Your task to perform on an android device: turn smart compose on in the gmail app Image 0: 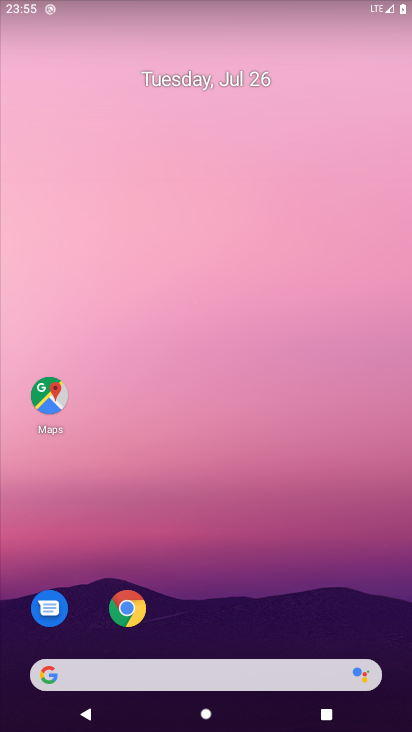
Step 0: press home button
Your task to perform on an android device: turn smart compose on in the gmail app Image 1: 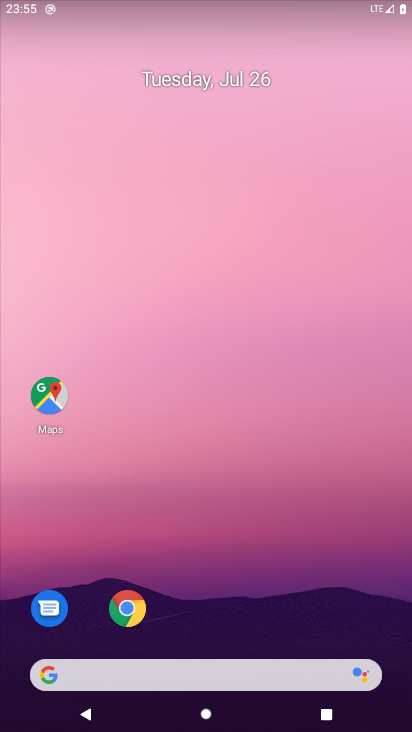
Step 1: drag from (271, 586) to (250, 92)
Your task to perform on an android device: turn smart compose on in the gmail app Image 2: 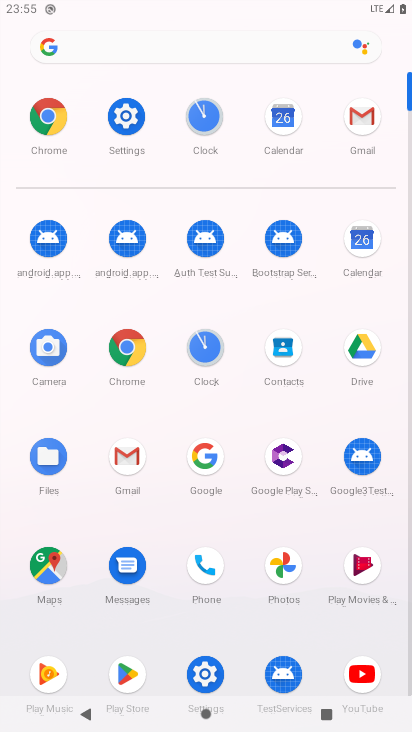
Step 2: click (368, 120)
Your task to perform on an android device: turn smart compose on in the gmail app Image 3: 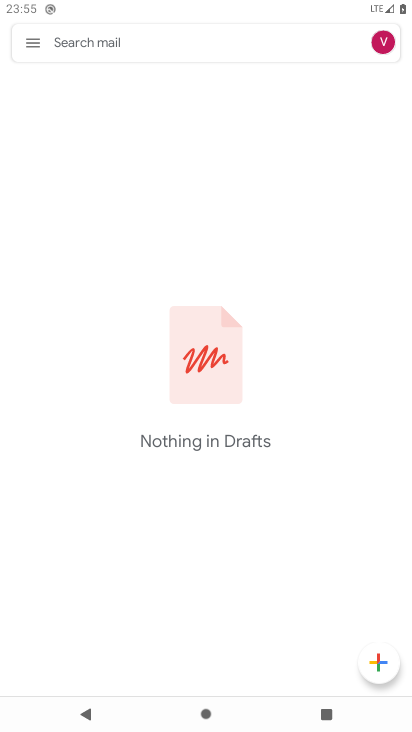
Step 3: click (31, 45)
Your task to perform on an android device: turn smart compose on in the gmail app Image 4: 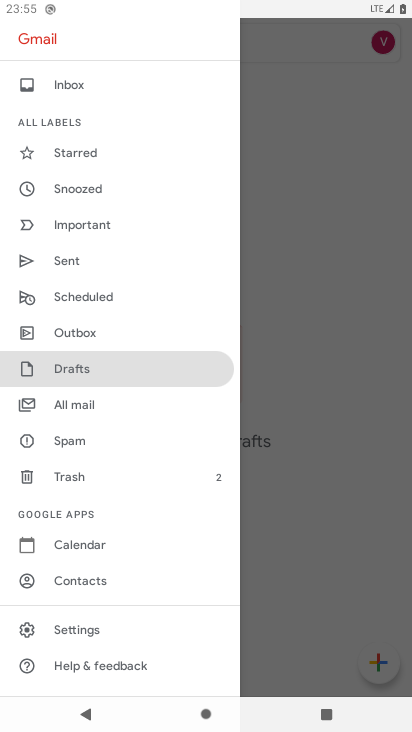
Step 4: click (84, 623)
Your task to perform on an android device: turn smart compose on in the gmail app Image 5: 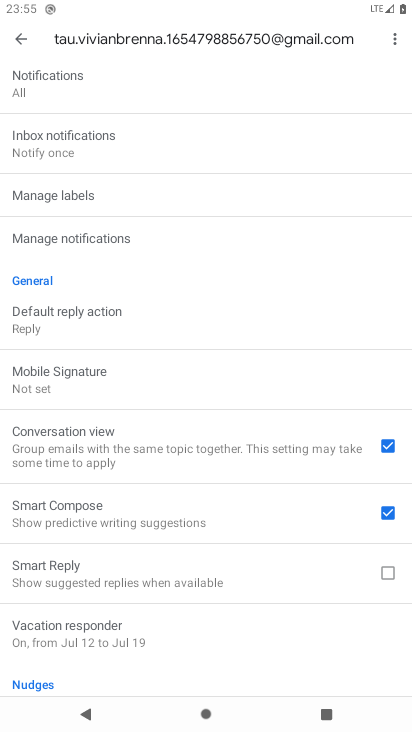
Step 5: task complete